Your task to perform on an android device: turn on priority inbox in the gmail app Image 0: 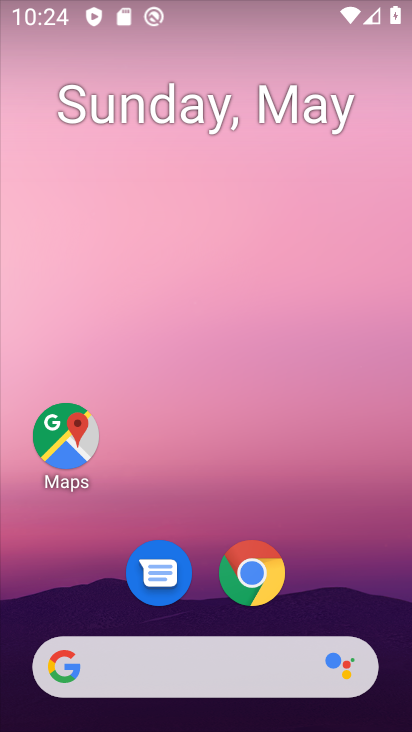
Step 0: drag from (218, 505) to (266, 285)
Your task to perform on an android device: turn on priority inbox in the gmail app Image 1: 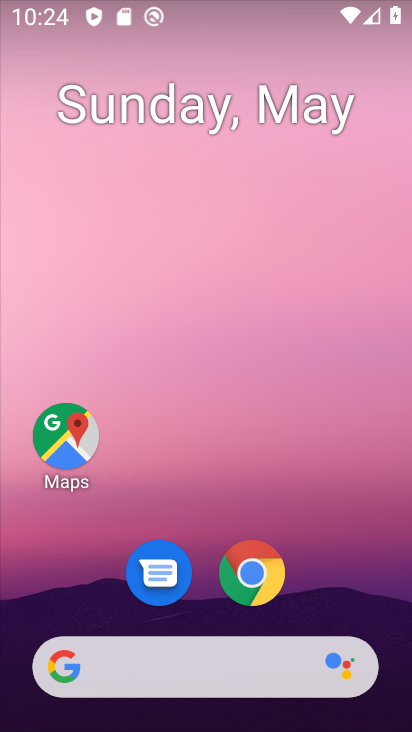
Step 1: drag from (203, 596) to (229, 288)
Your task to perform on an android device: turn on priority inbox in the gmail app Image 2: 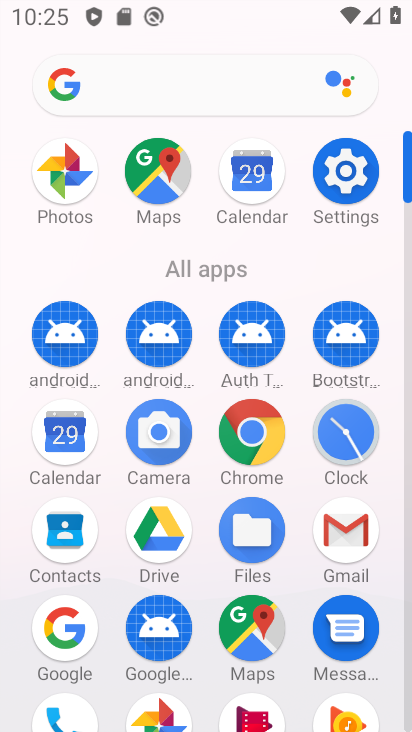
Step 2: click (342, 526)
Your task to perform on an android device: turn on priority inbox in the gmail app Image 3: 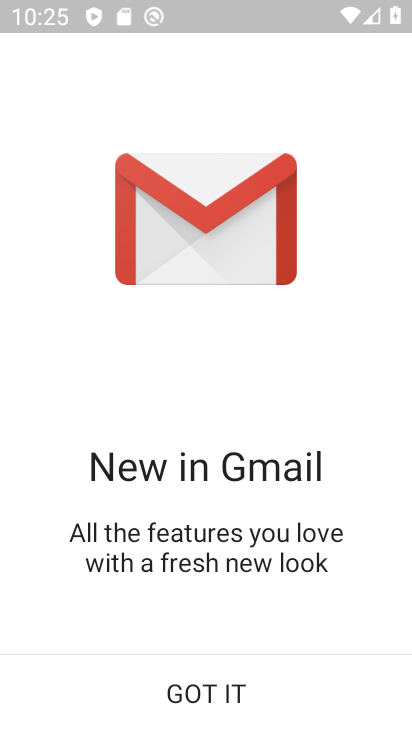
Step 3: click (206, 698)
Your task to perform on an android device: turn on priority inbox in the gmail app Image 4: 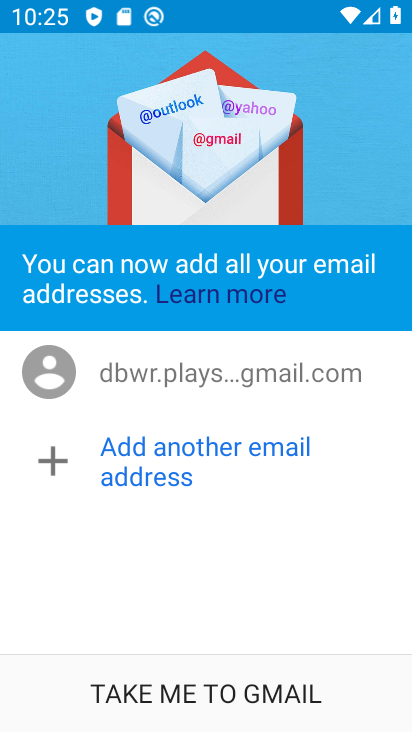
Step 4: click (215, 687)
Your task to perform on an android device: turn on priority inbox in the gmail app Image 5: 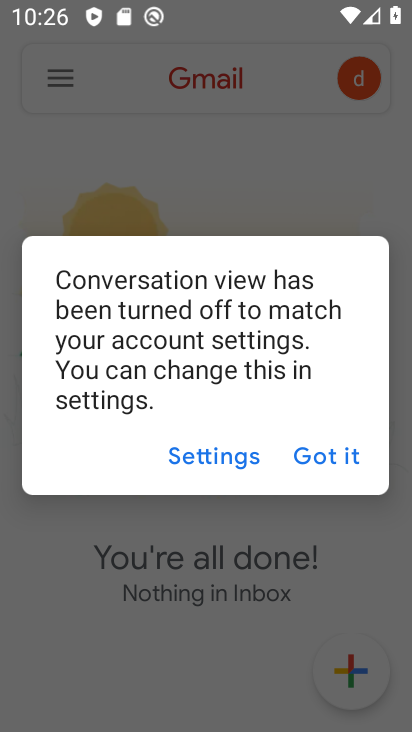
Step 5: click (327, 459)
Your task to perform on an android device: turn on priority inbox in the gmail app Image 6: 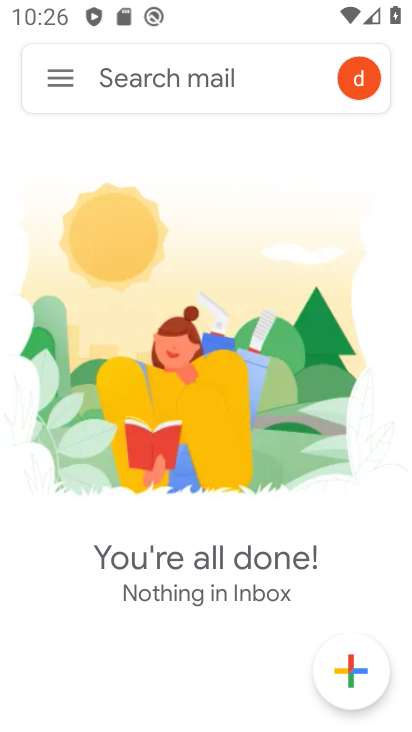
Step 6: click (61, 77)
Your task to perform on an android device: turn on priority inbox in the gmail app Image 7: 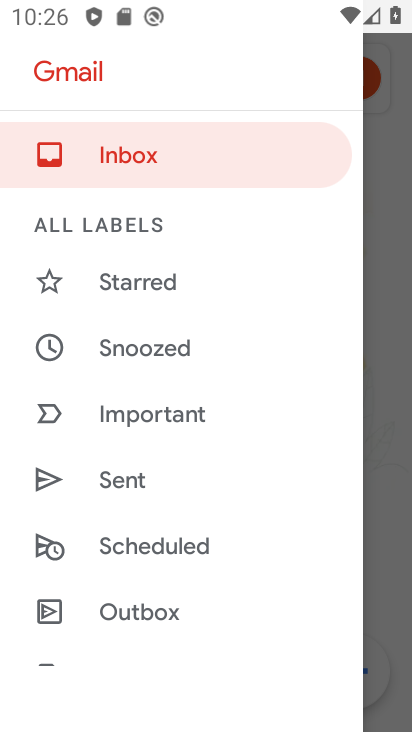
Step 7: drag from (156, 580) to (219, 308)
Your task to perform on an android device: turn on priority inbox in the gmail app Image 8: 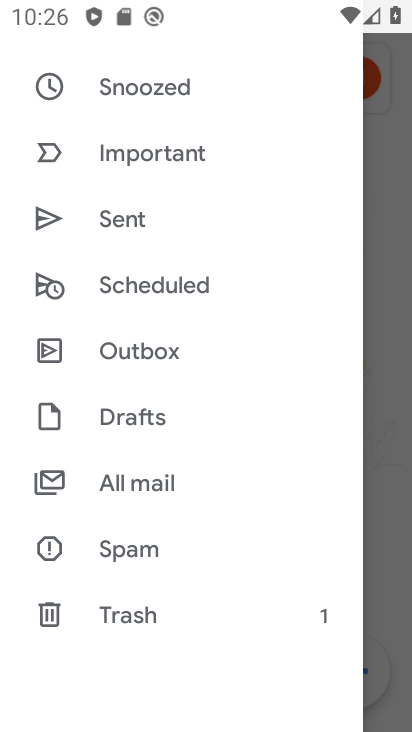
Step 8: drag from (158, 596) to (261, 233)
Your task to perform on an android device: turn on priority inbox in the gmail app Image 9: 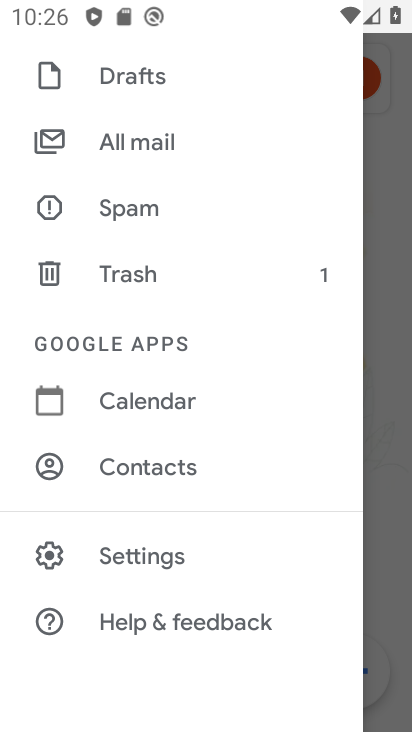
Step 9: click (141, 544)
Your task to perform on an android device: turn on priority inbox in the gmail app Image 10: 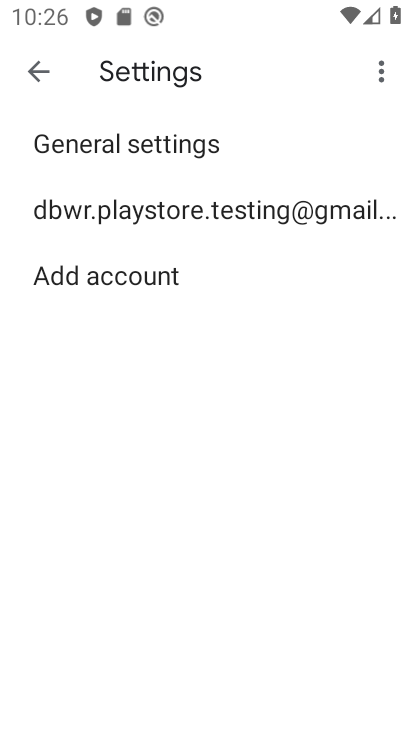
Step 10: click (189, 209)
Your task to perform on an android device: turn on priority inbox in the gmail app Image 11: 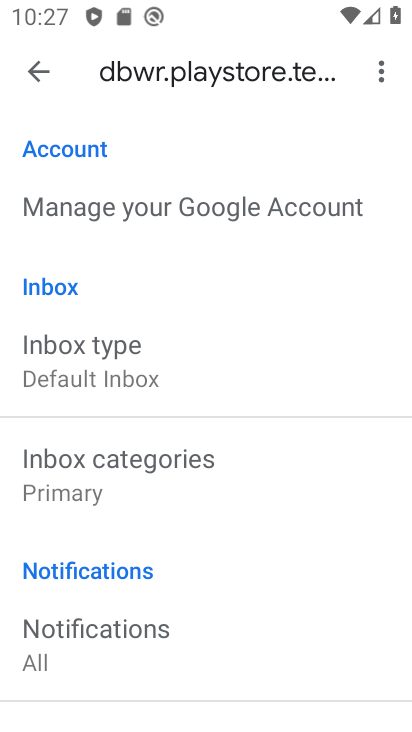
Step 11: drag from (104, 665) to (160, 369)
Your task to perform on an android device: turn on priority inbox in the gmail app Image 12: 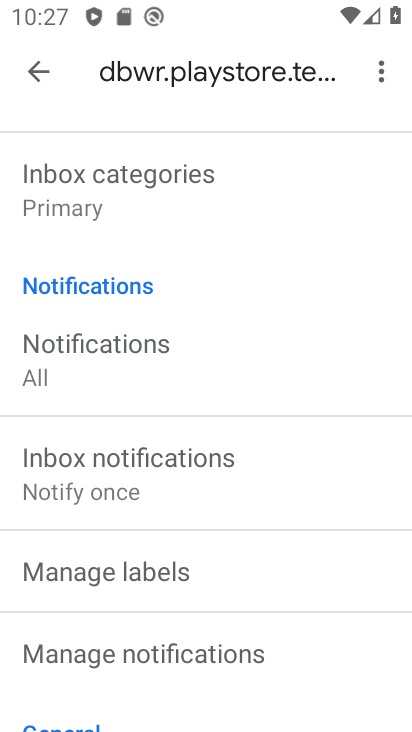
Step 12: drag from (116, 696) to (128, 563)
Your task to perform on an android device: turn on priority inbox in the gmail app Image 13: 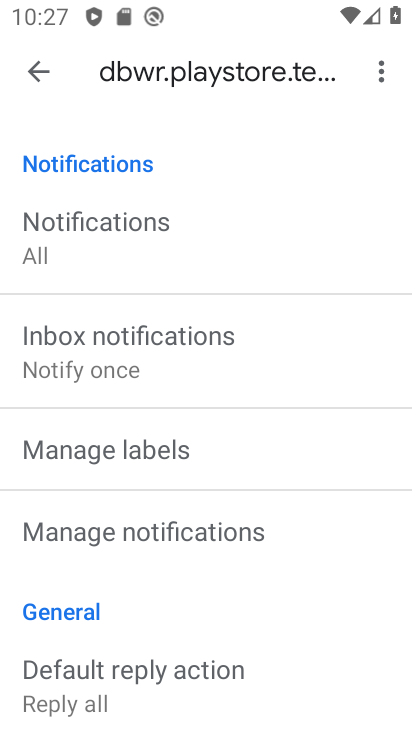
Step 13: drag from (149, 570) to (157, 683)
Your task to perform on an android device: turn on priority inbox in the gmail app Image 14: 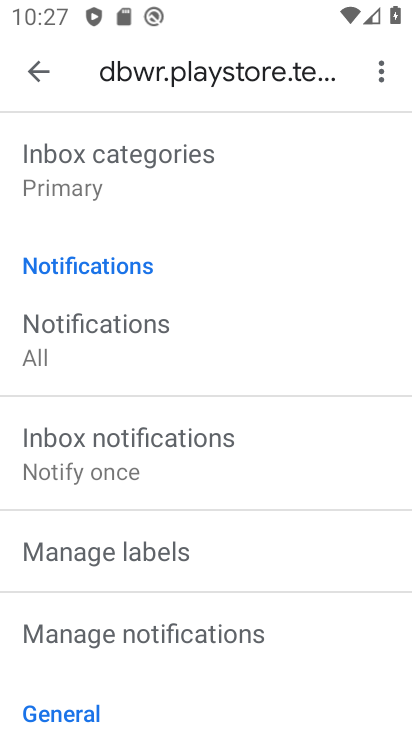
Step 14: click (148, 169)
Your task to perform on an android device: turn on priority inbox in the gmail app Image 15: 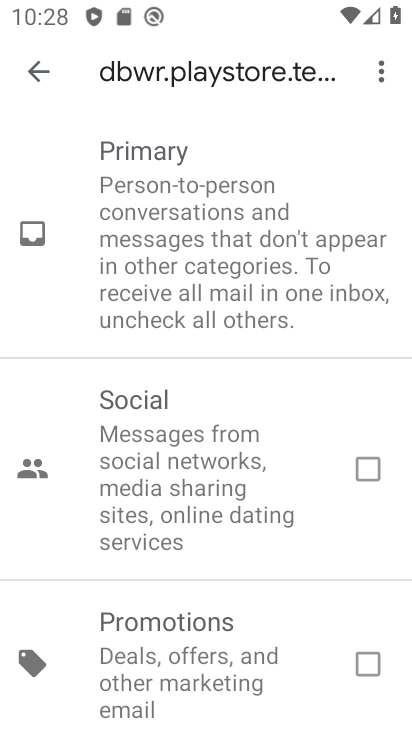
Step 15: task complete